Your task to perform on an android device: Search for Italian restaurants on Maps Image 0: 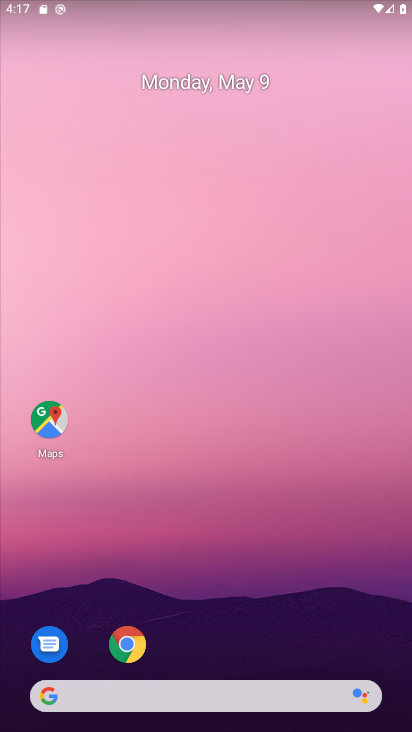
Step 0: click (48, 419)
Your task to perform on an android device: Search for Italian restaurants on Maps Image 1: 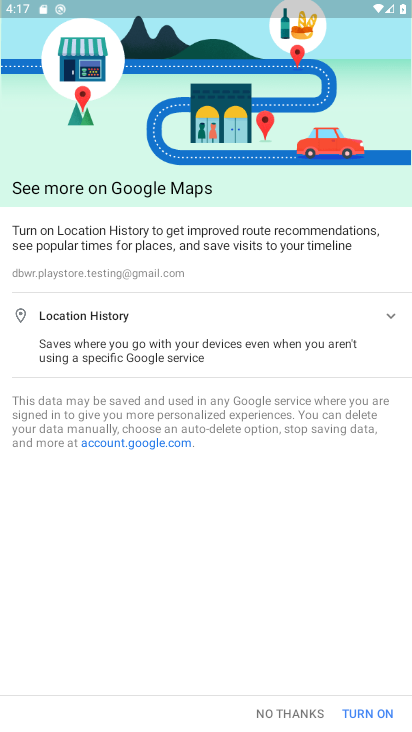
Step 1: click (296, 714)
Your task to perform on an android device: Search for Italian restaurants on Maps Image 2: 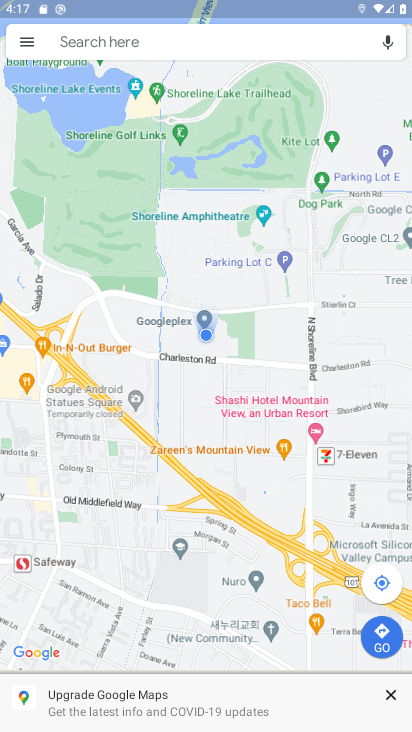
Step 2: click (256, 49)
Your task to perform on an android device: Search for Italian restaurants on Maps Image 3: 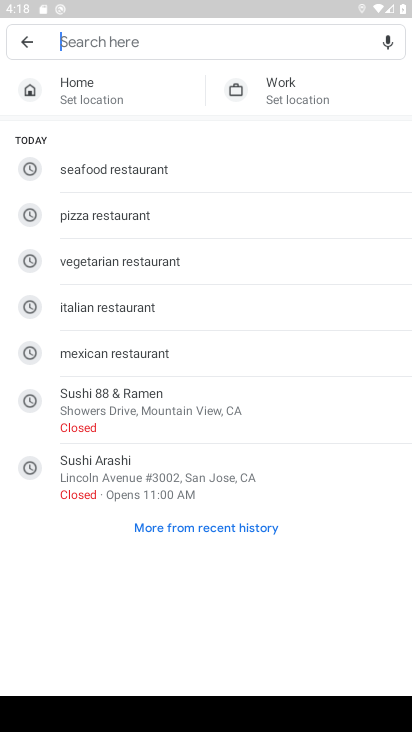
Step 3: type "Italian restaurants"
Your task to perform on an android device: Search for Italian restaurants on Maps Image 4: 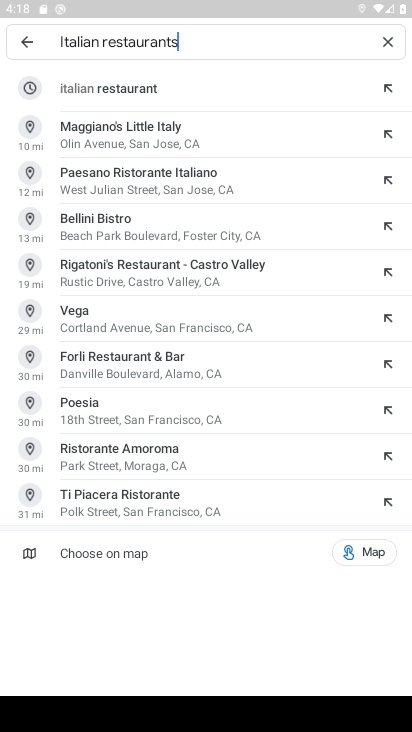
Step 4: click (128, 88)
Your task to perform on an android device: Search for Italian restaurants on Maps Image 5: 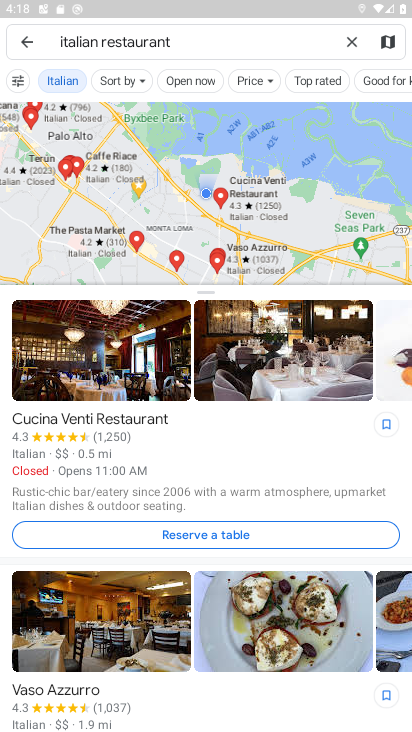
Step 5: task complete